Your task to perform on an android device: see tabs open on other devices in the chrome app Image 0: 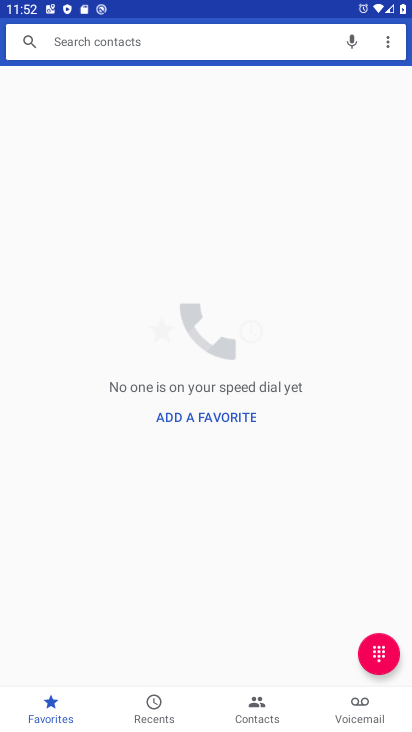
Step 0: press home button
Your task to perform on an android device: see tabs open on other devices in the chrome app Image 1: 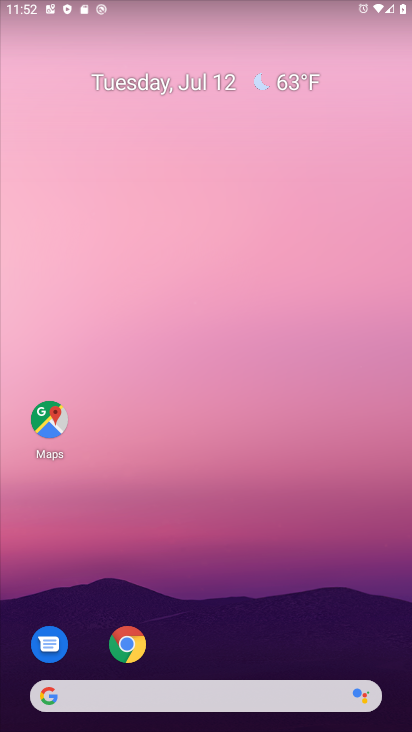
Step 1: drag from (172, 690) to (198, 228)
Your task to perform on an android device: see tabs open on other devices in the chrome app Image 2: 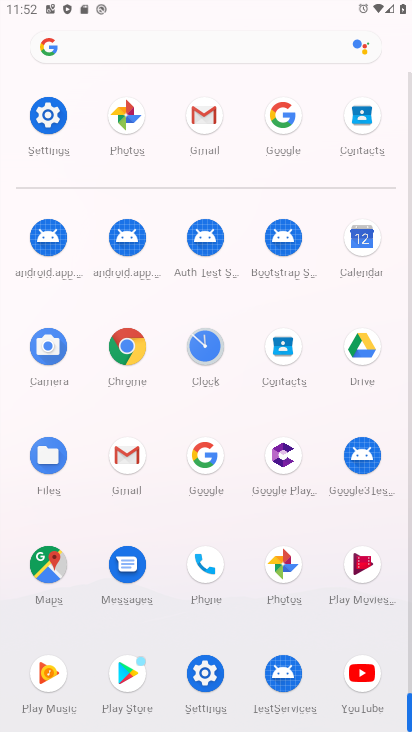
Step 2: click (125, 345)
Your task to perform on an android device: see tabs open on other devices in the chrome app Image 3: 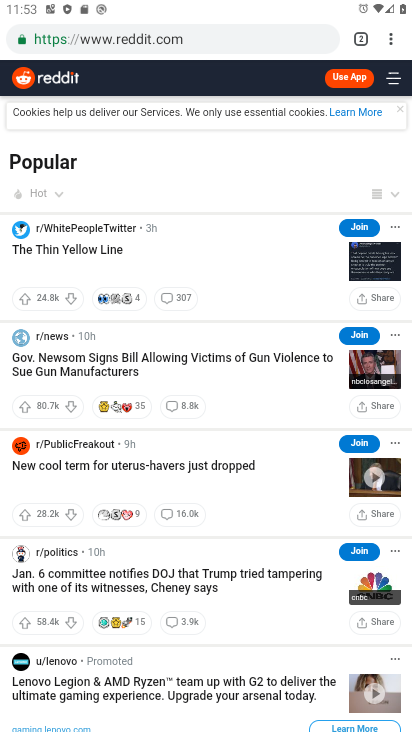
Step 3: click (388, 38)
Your task to perform on an android device: see tabs open on other devices in the chrome app Image 4: 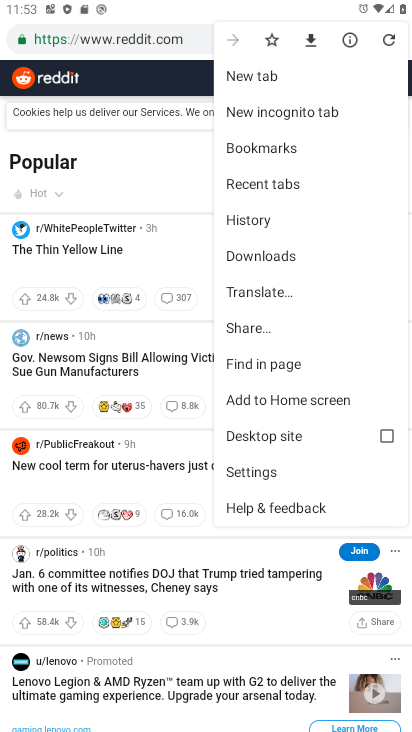
Step 4: click (283, 189)
Your task to perform on an android device: see tabs open on other devices in the chrome app Image 5: 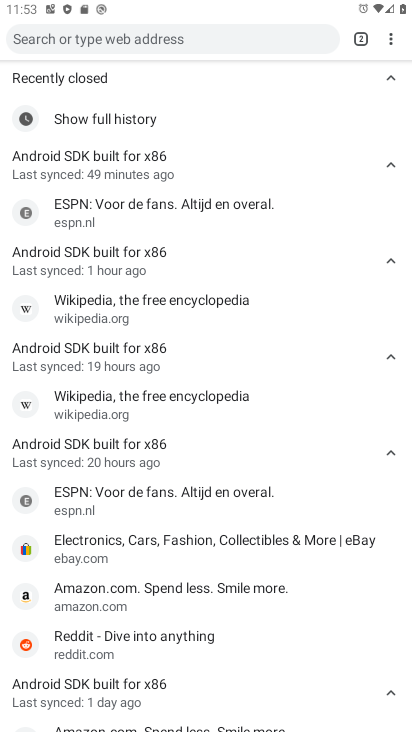
Step 5: task complete